Your task to perform on an android device: Search for the ikea billy bookcase Image 0: 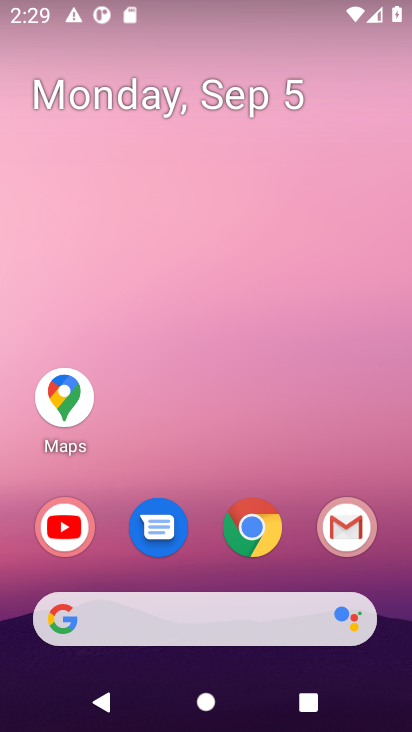
Step 0: click (244, 537)
Your task to perform on an android device: Search for the ikea billy bookcase Image 1: 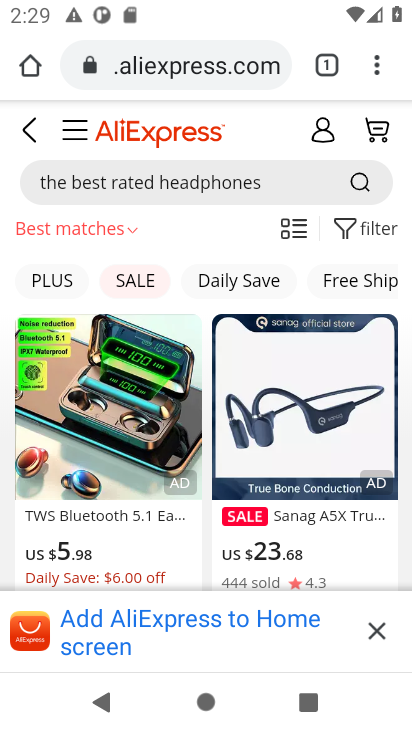
Step 1: click (206, 62)
Your task to perform on an android device: Search for the ikea billy bookcase Image 2: 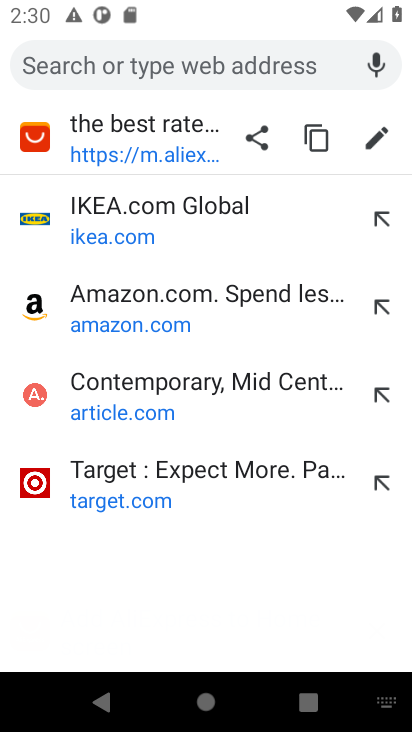
Step 2: type "the ikea billy bookcase"
Your task to perform on an android device: Search for the ikea billy bookcase Image 3: 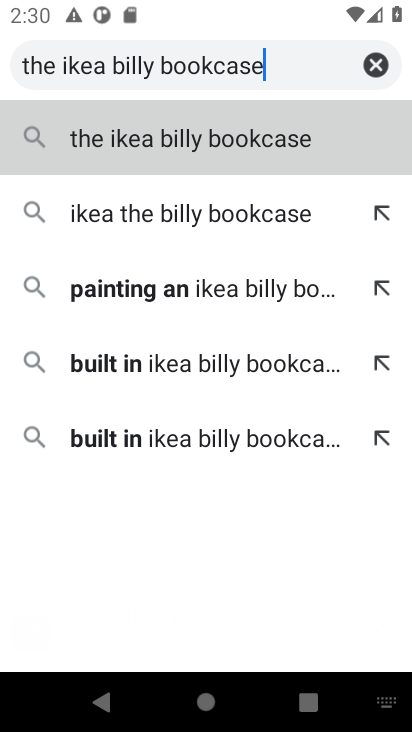
Step 3: click (288, 146)
Your task to perform on an android device: Search for the ikea billy bookcase Image 4: 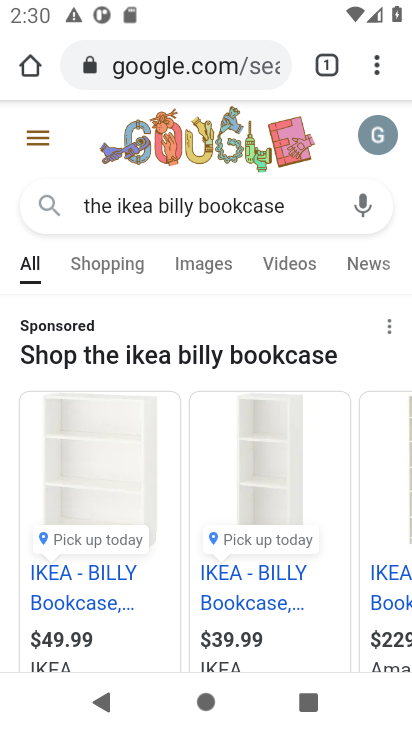
Step 4: task complete